Your task to perform on an android device: Open calendar and show me the first week of next month Image 0: 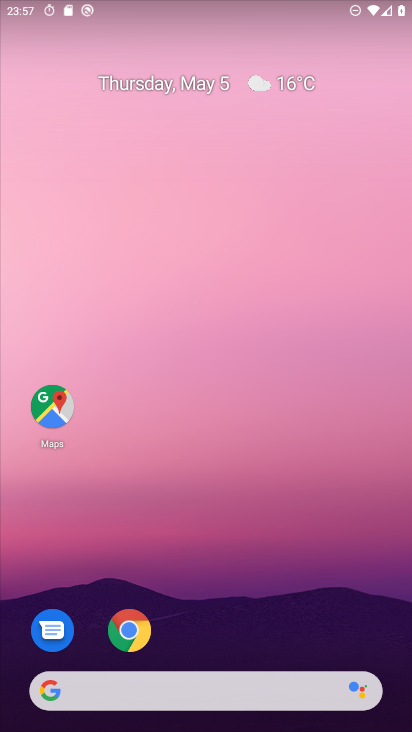
Step 0: drag from (298, 613) to (302, 153)
Your task to perform on an android device: Open calendar and show me the first week of next month Image 1: 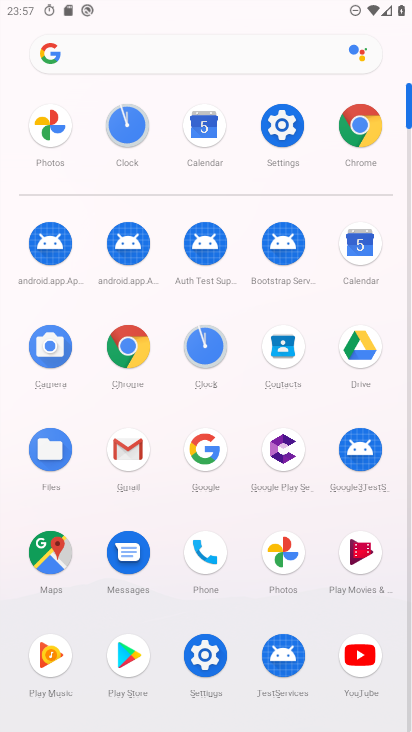
Step 1: click (212, 130)
Your task to perform on an android device: Open calendar and show me the first week of next month Image 2: 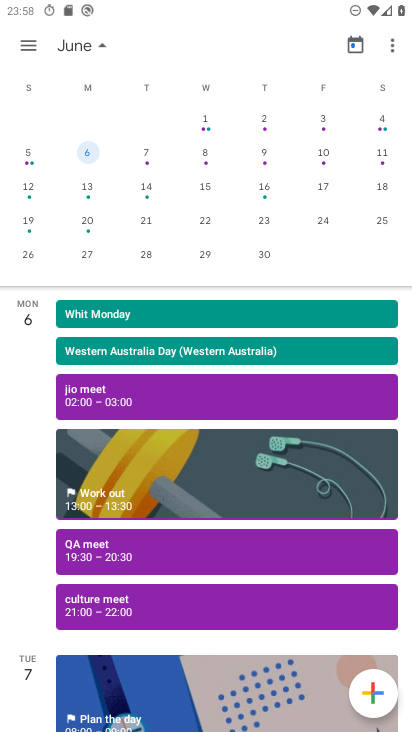
Step 2: click (265, 117)
Your task to perform on an android device: Open calendar and show me the first week of next month Image 3: 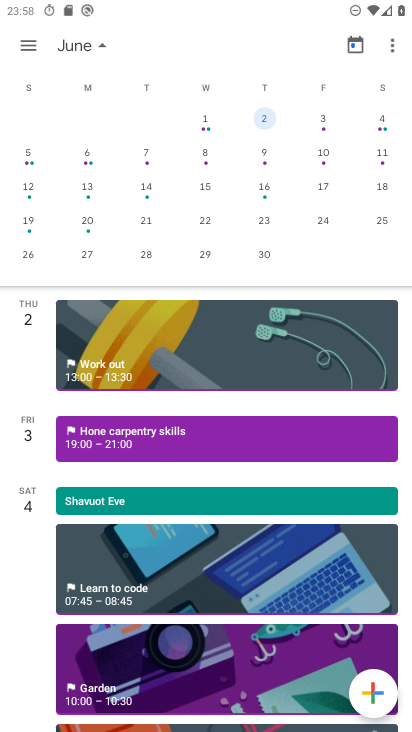
Step 3: task complete